Your task to perform on an android device: Search for hotels in Zurich Image 0: 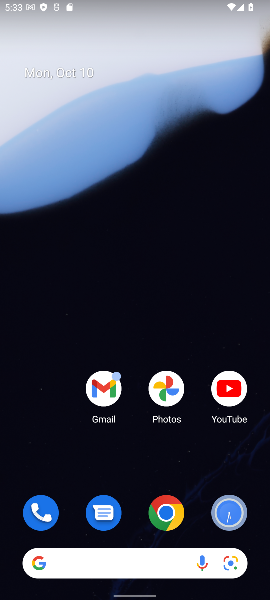
Step 0: click (156, 563)
Your task to perform on an android device: Search for hotels in Zurich Image 1: 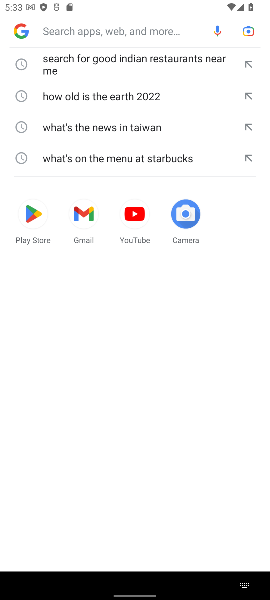
Step 1: type "Search for hotels in Zurich"
Your task to perform on an android device: Search for hotels in Zurich Image 2: 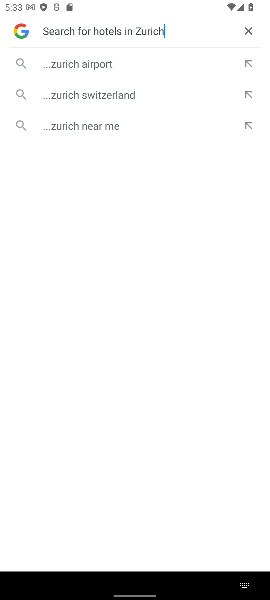
Step 2: click (67, 73)
Your task to perform on an android device: Search for hotels in Zurich Image 3: 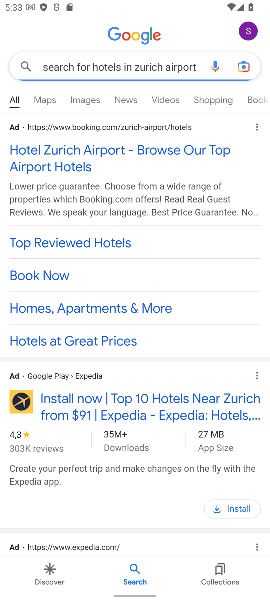
Step 3: task complete